Your task to perform on an android device: Open Google Maps and go to "Timeline" Image 0: 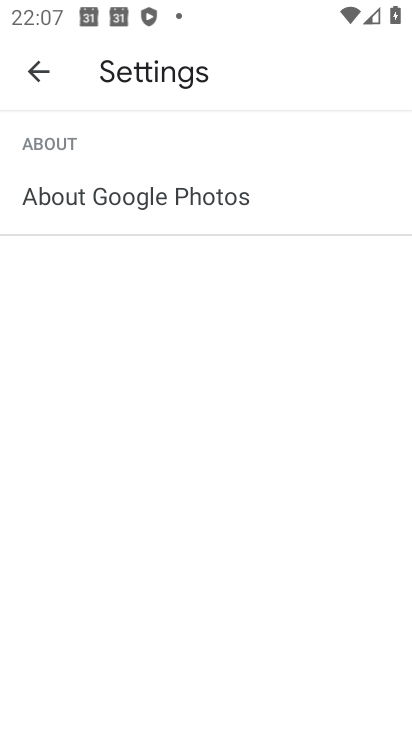
Step 0: press home button
Your task to perform on an android device: Open Google Maps and go to "Timeline" Image 1: 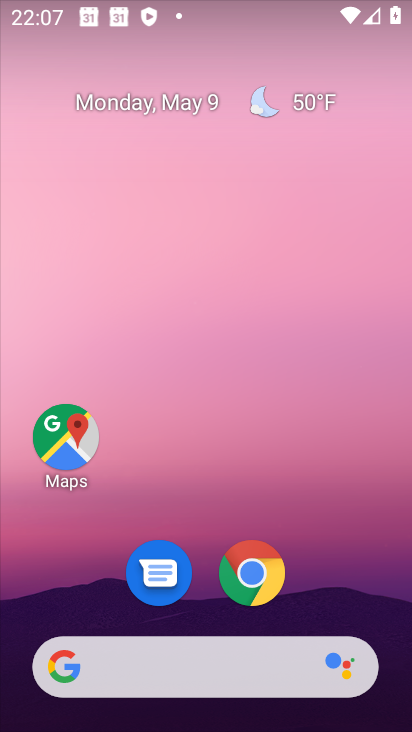
Step 1: drag from (342, 589) to (319, 289)
Your task to perform on an android device: Open Google Maps and go to "Timeline" Image 2: 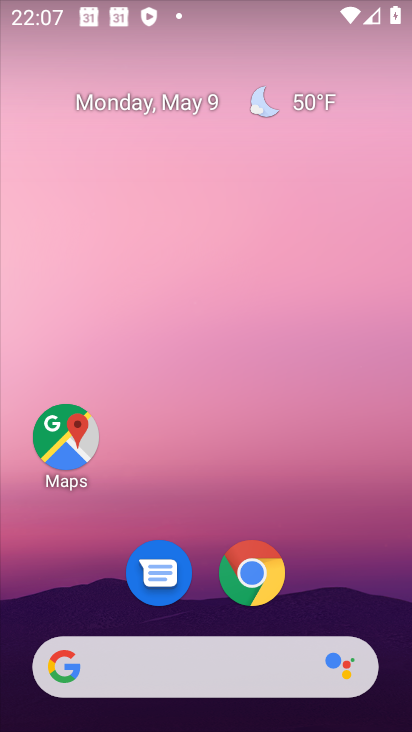
Step 2: click (56, 426)
Your task to perform on an android device: Open Google Maps and go to "Timeline" Image 3: 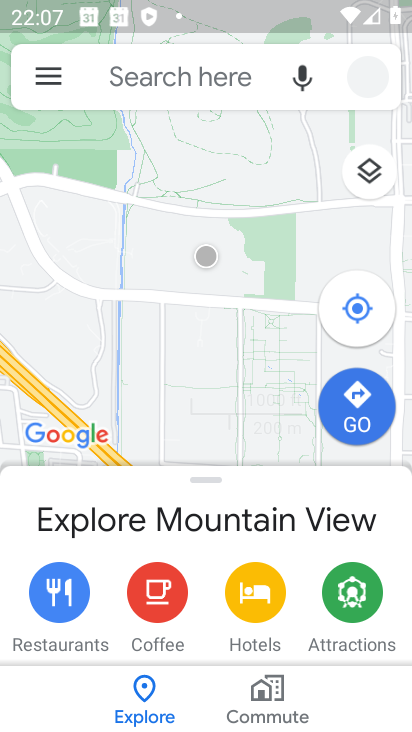
Step 3: click (56, 80)
Your task to perform on an android device: Open Google Maps and go to "Timeline" Image 4: 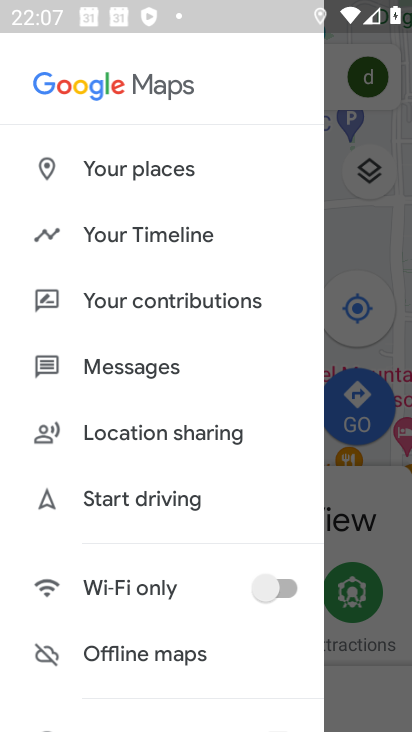
Step 4: click (166, 233)
Your task to perform on an android device: Open Google Maps and go to "Timeline" Image 5: 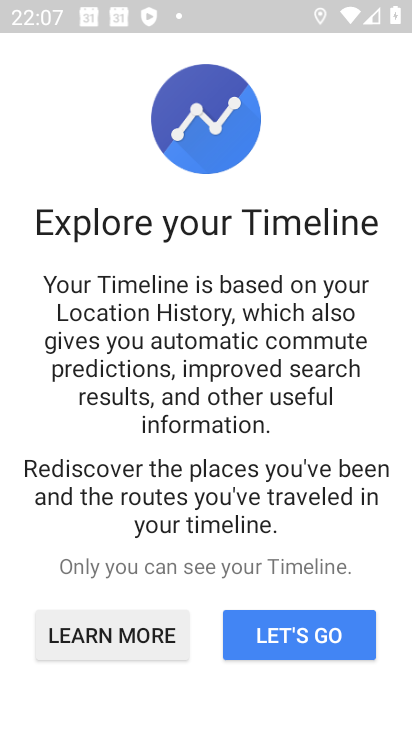
Step 5: click (284, 649)
Your task to perform on an android device: Open Google Maps and go to "Timeline" Image 6: 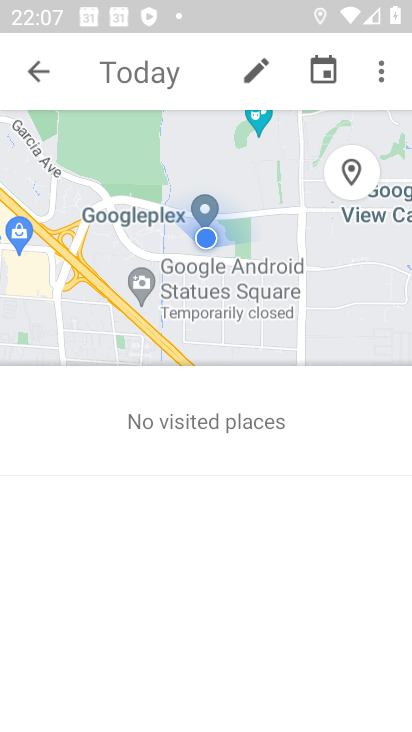
Step 6: task complete